Your task to perform on an android device: turn on bluetooth scan Image 0: 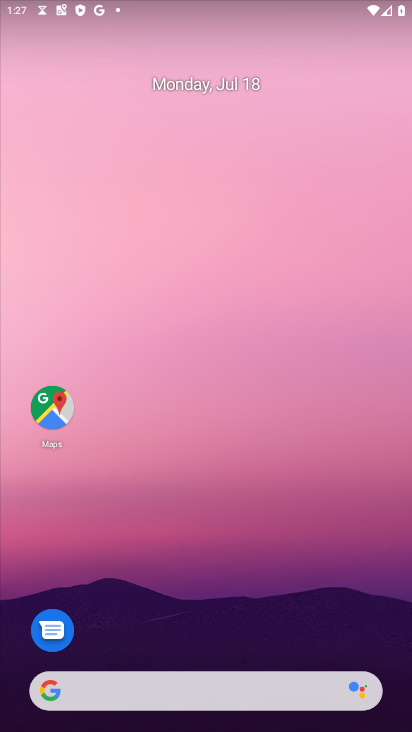
Step 0: drag from (262, 611) to (259, 84)
Your task to perform on an android device: turn on bluetooth scan Image 1: 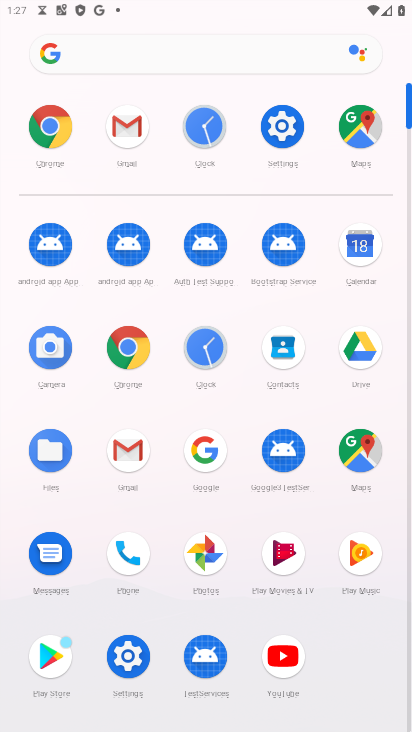
Step 1: click (290, 131)
Your task to perform on an android device: turn on bluetooth scan Image 2: 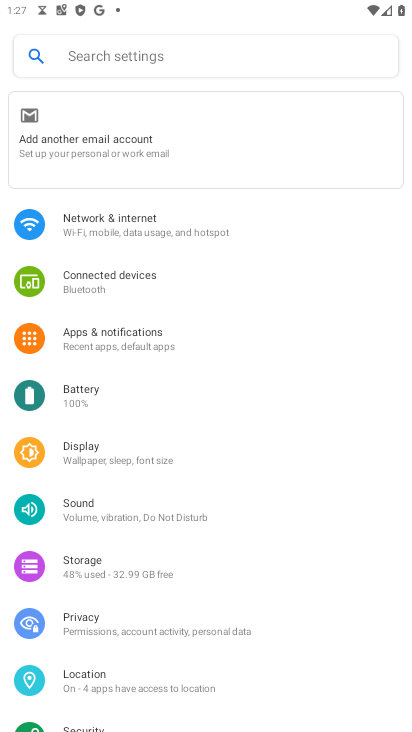
Step 2: click (123, 689)
Your task to perform on an android device: turn on bluetooth scan Image 3: 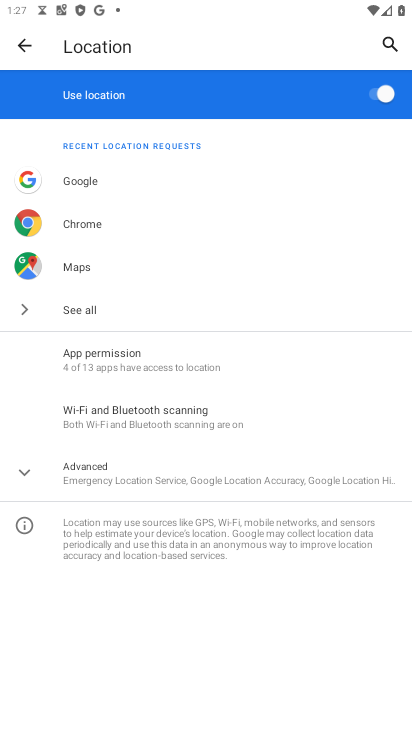
Step 3: click (109, 479)
Your task to perform on an android device: turn on bluetooth scan Image 4: 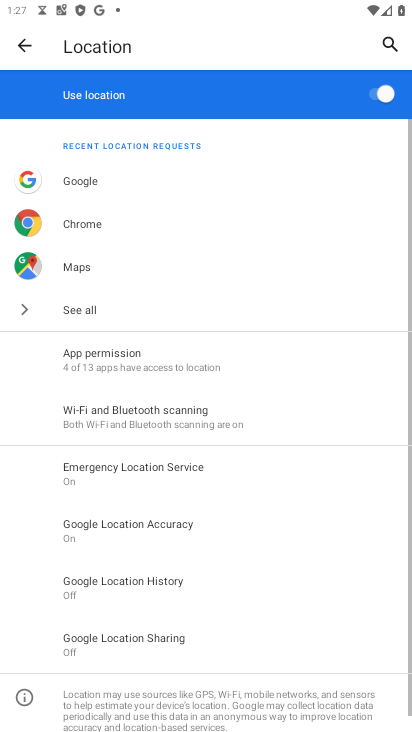
Step 4: click (171, 418)
Your task to perform on an android device: turn on bluetooth scan Image 5: 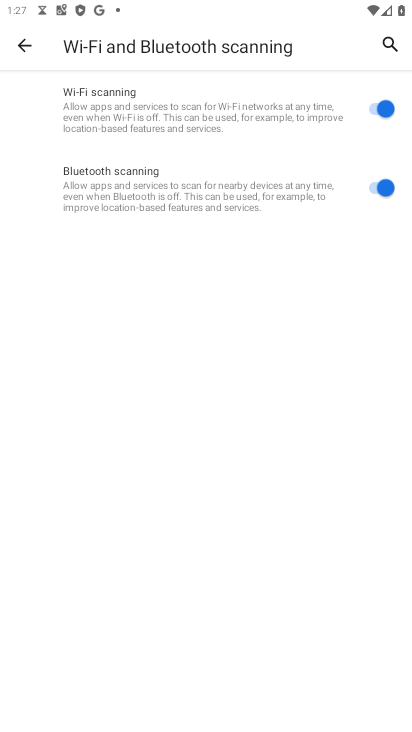
Step 5: task complete